Your task to perform on an android device: Play the last video I watched on Youtube Image 0: 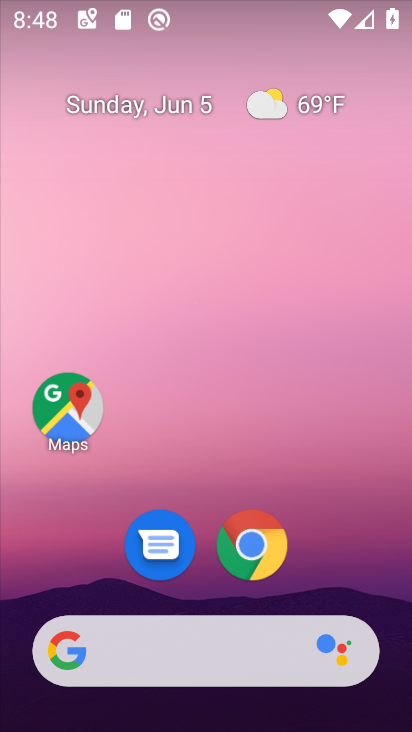
Step 0: drag from (349, 581) to (333, 230)
Your task to perform on an android device: Play the last video I watched on Youtube Image 1: 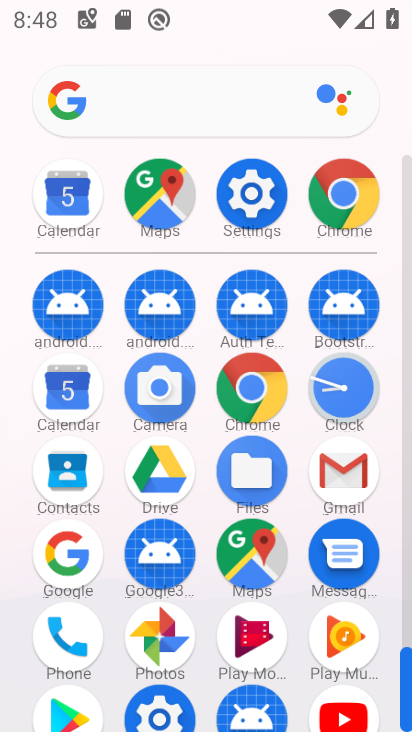
Step 1: drag from (391, 606) to (387, 421)
Your task to perform on an android device: Play the last video I watched on Youtube Image 2: 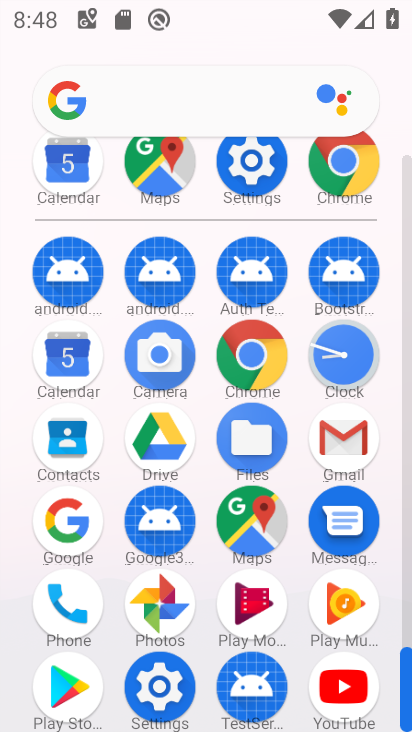
Step 2: click (334, 686)
Your task to perform on an android device: Play the last video I watched on Youtube Image 3: 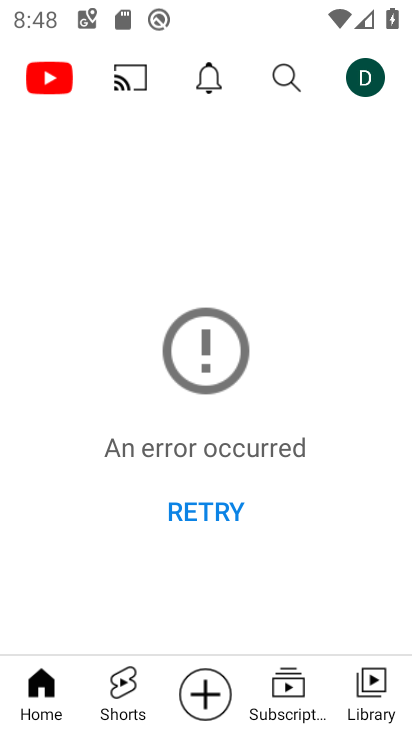
Step 3: click (363, 712)
Your task to perform on an android device: Play the last video I watched on Youtube Image 4: 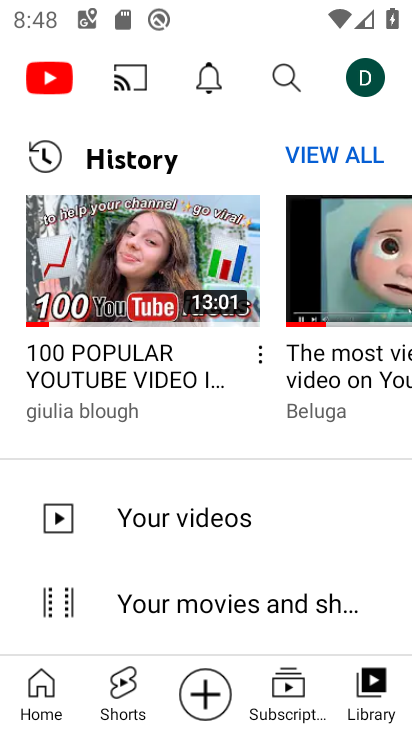
Step 4: click (196, 251)
Your task to perform on an android device: Play the last video I watched on Youtube Image 5: 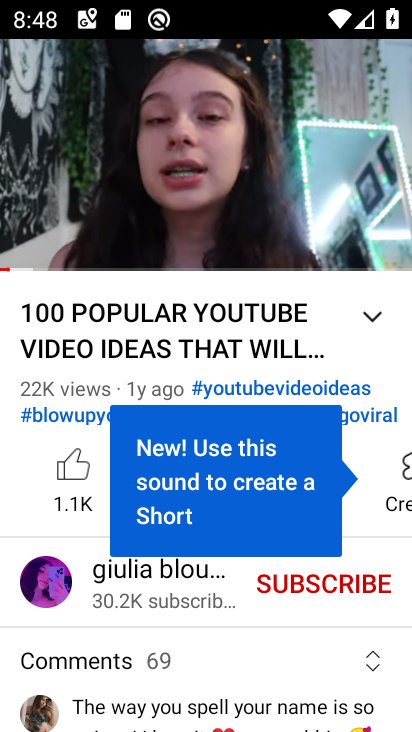
Step 5: task complete